Your task to perform on an android device: open a new tab in the chrome app Image 0: 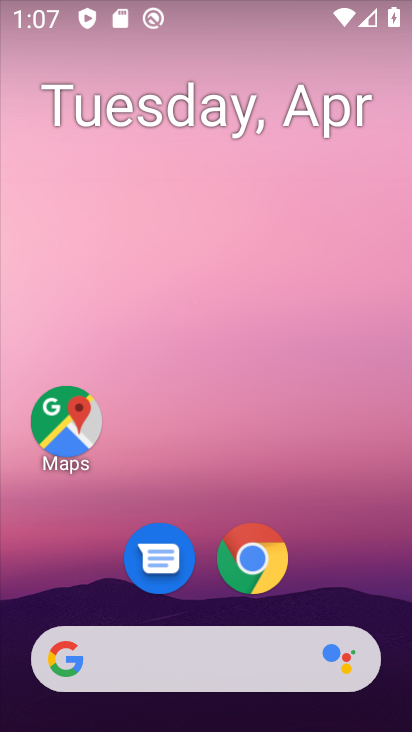
Step 0: drag from (206, 602) to (290, 202)
Your task to perform on an android device: open a new tab in the chrome app Image 1: 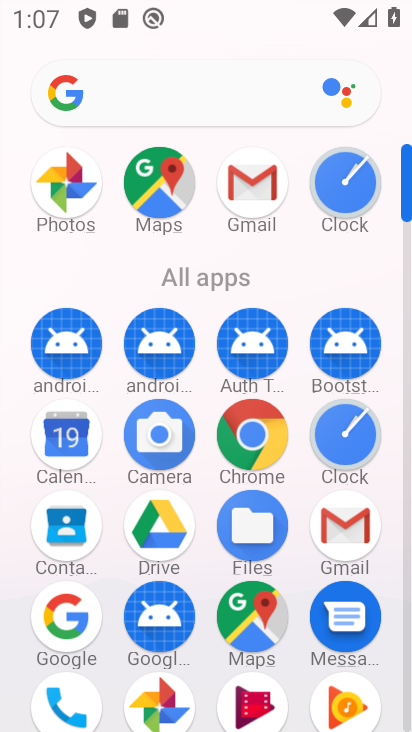
Step 1: click (250, 427)
Your task to perform on an android device: open a new tab in the chrome app Image 2: 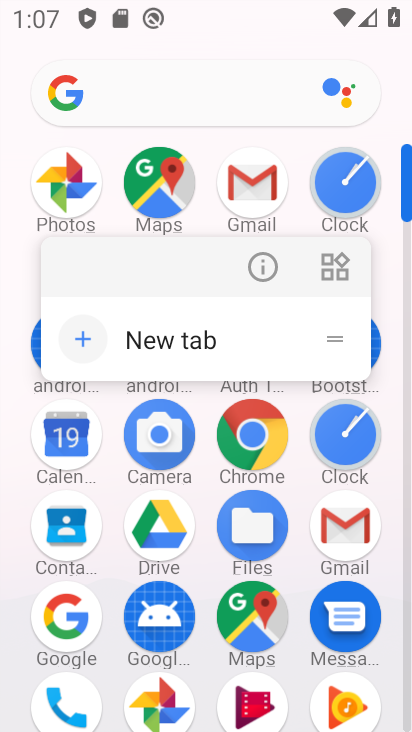
Step 2: click (268, 250)
Your task to perform on an android device: open a new tab in the chrome app Image 3: 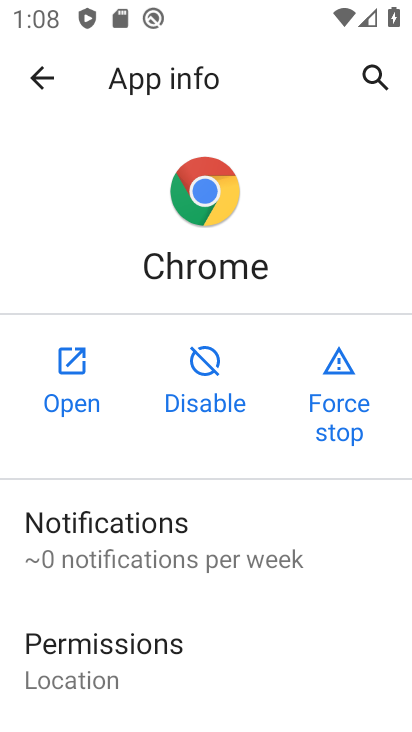
Step 3: click (80, 361)
Your task to perform on an android device: open a new tab in the chrome app Image 4: 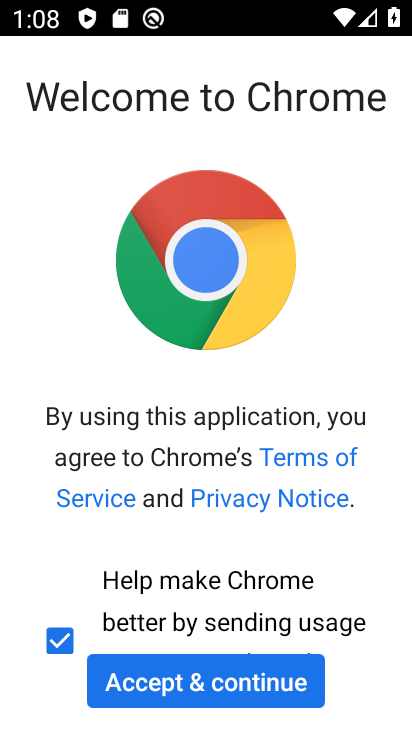
Step 4: click (185, 696)
Your task to perform on an android device: open a new tab in the chrome app Image 5: 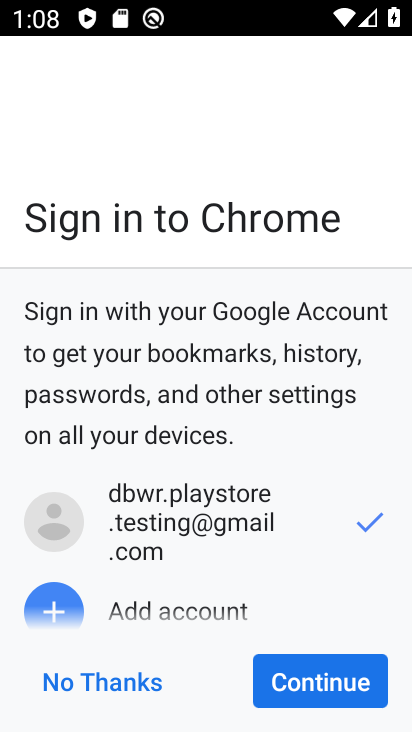
Step 5: click (137, 674)
Your task to perform on an android device: open a new tab in the chrome app Image 6: 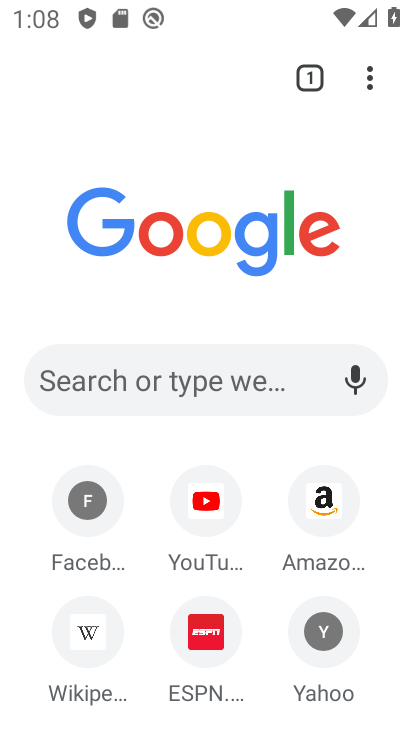
Step 6: click (298, 84)
Your task to perform on an android device: open a new tab in the chrome app Image 7: 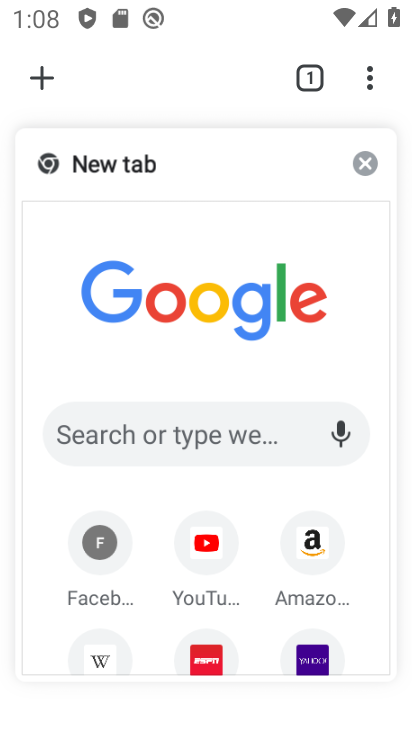
Step 7: click (36, 68)
Your task to perform on an android device: open a new tab in the chrome app Image 8: 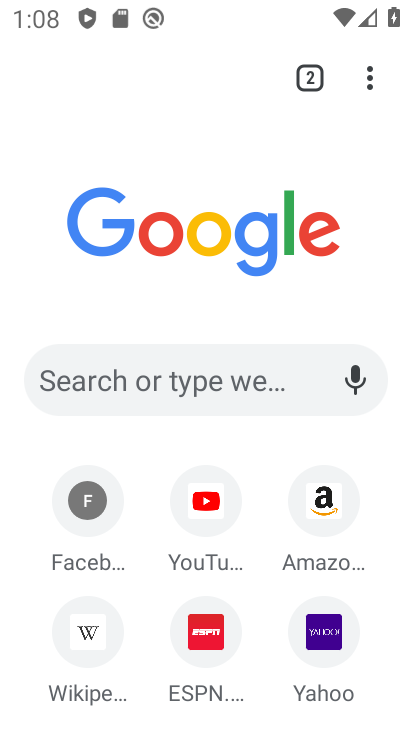
Step 8: task complete